Your task to perform on an android device: empty trash in the gmail app Image 0: 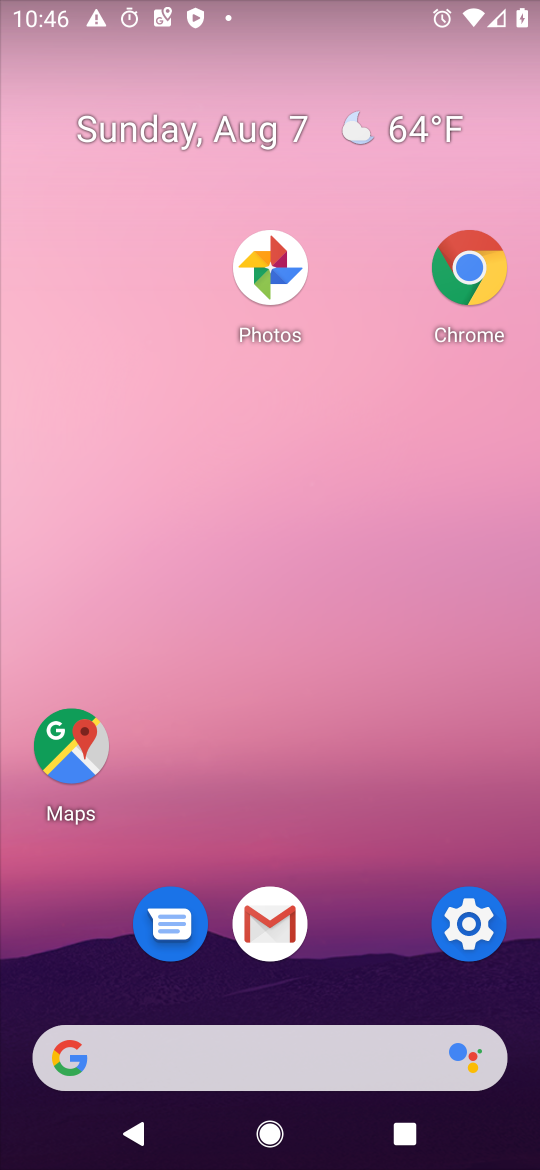
Step 0: press home button
Your task to perform on an android device: empty trash in the gmail app Image 1: 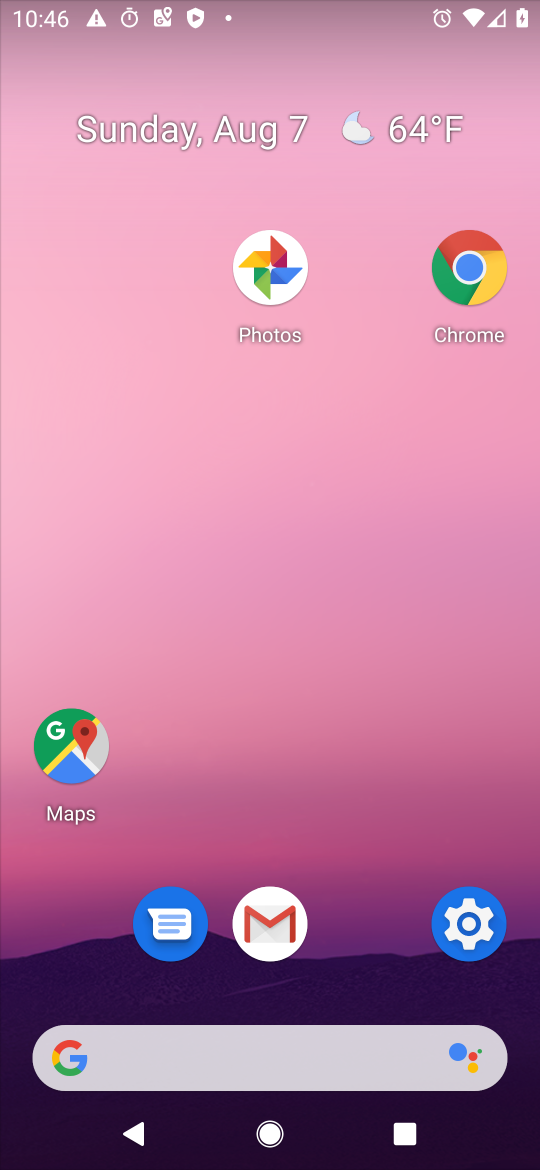
Step 1: click (268, 903)
Your task to perform on an android device: empty trash in the gmail app Image 2: 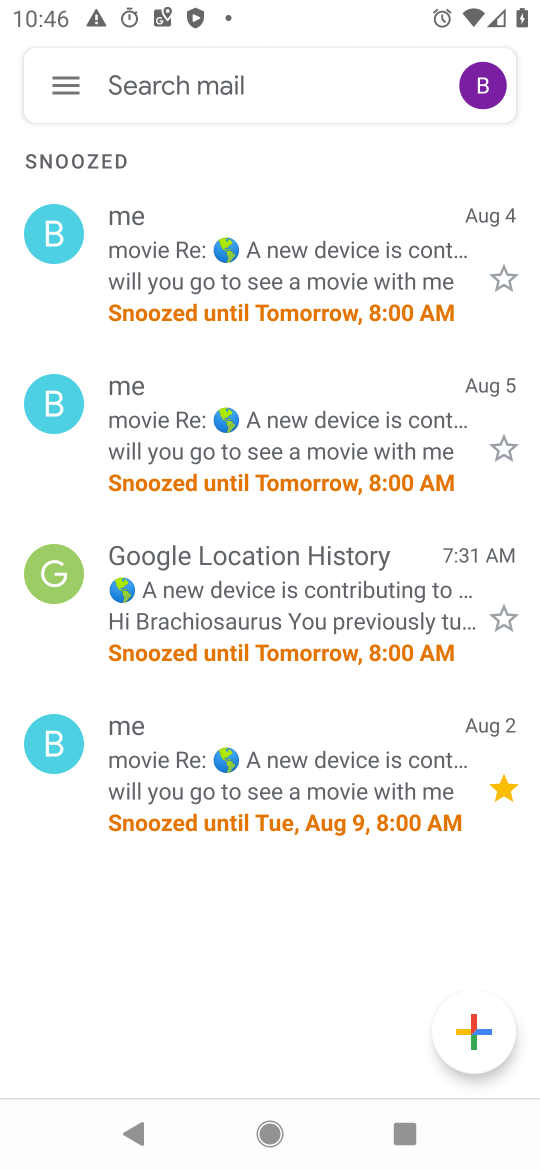
Step 2: click (56, 83)
Your task to perform on an android device: empty trash in the gmail app Image 3: 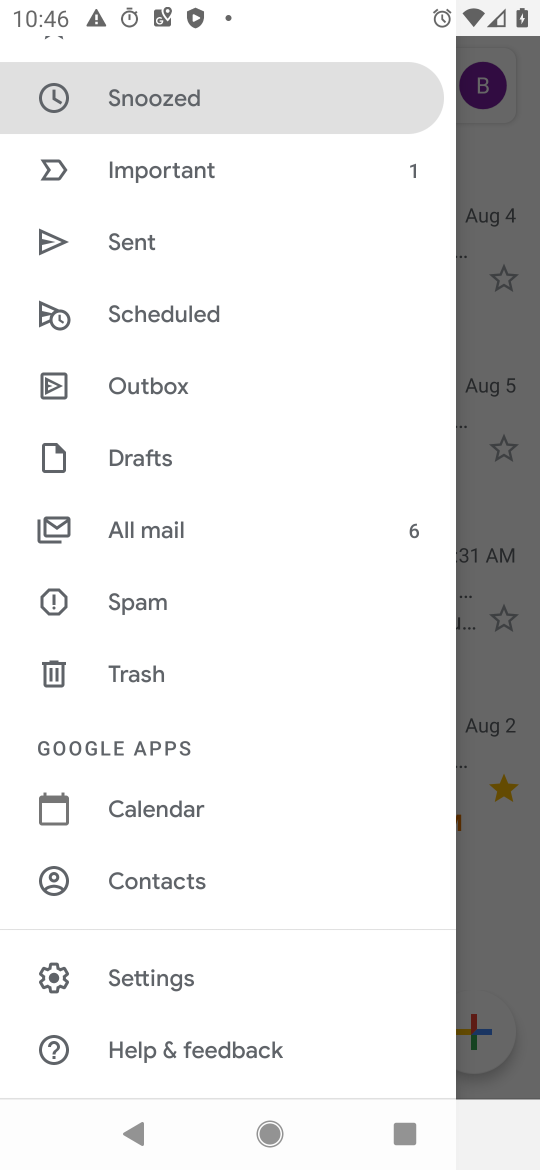
Step 3: click (152, 679)
Your task to perform on an android device: empty trash in the gmail app Image 4: 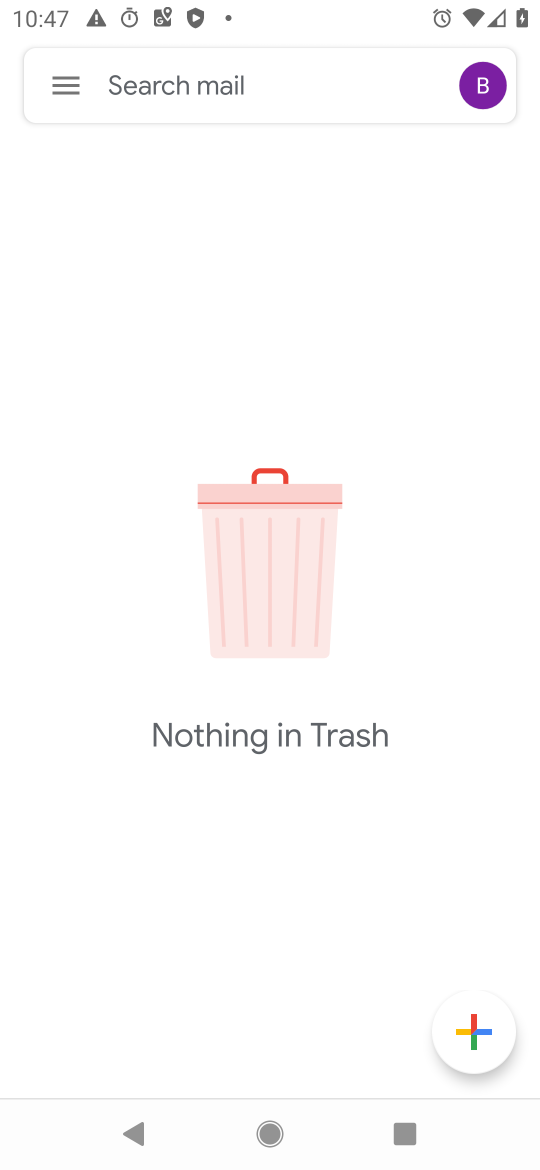
Step 4: task complete